Your task to perform on an android device: What is the recent news? Image 0: 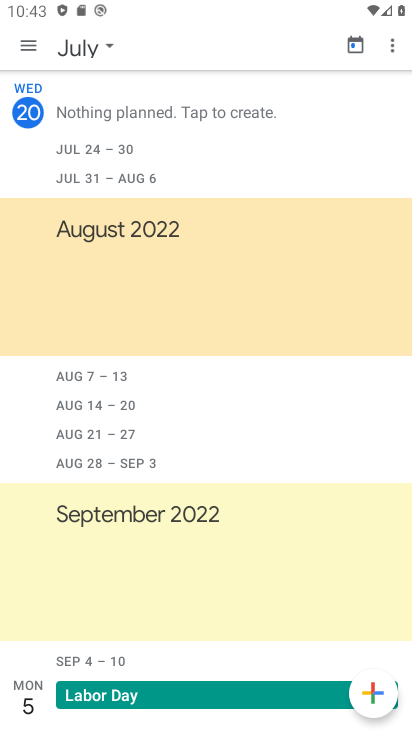
Step 0: press home button
Your task to perform on an android device: What is the recent news? Image 1: 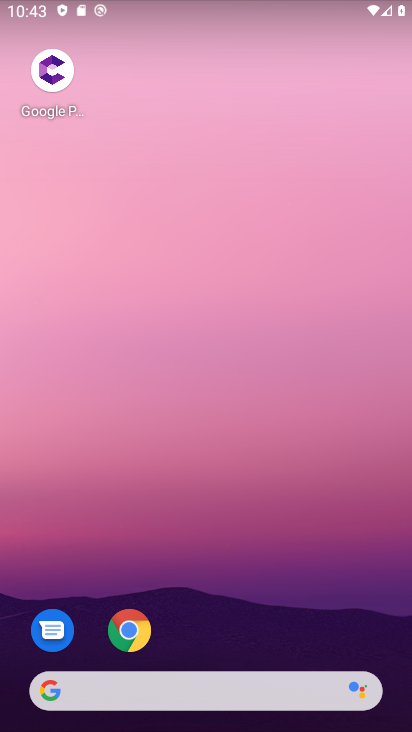
Step 1: task complete